Your task to perform on an android device: uninstall "Nova Launcher" Image 0: 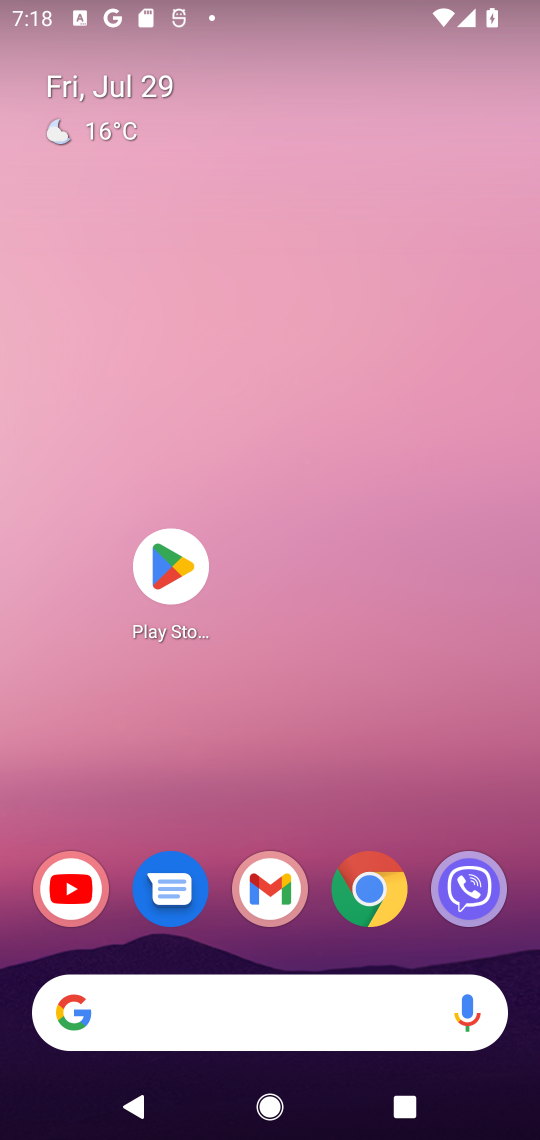
Step 0: press home button
Your task to perform on an android device: uninstall "Nova Launcher" Image 1: 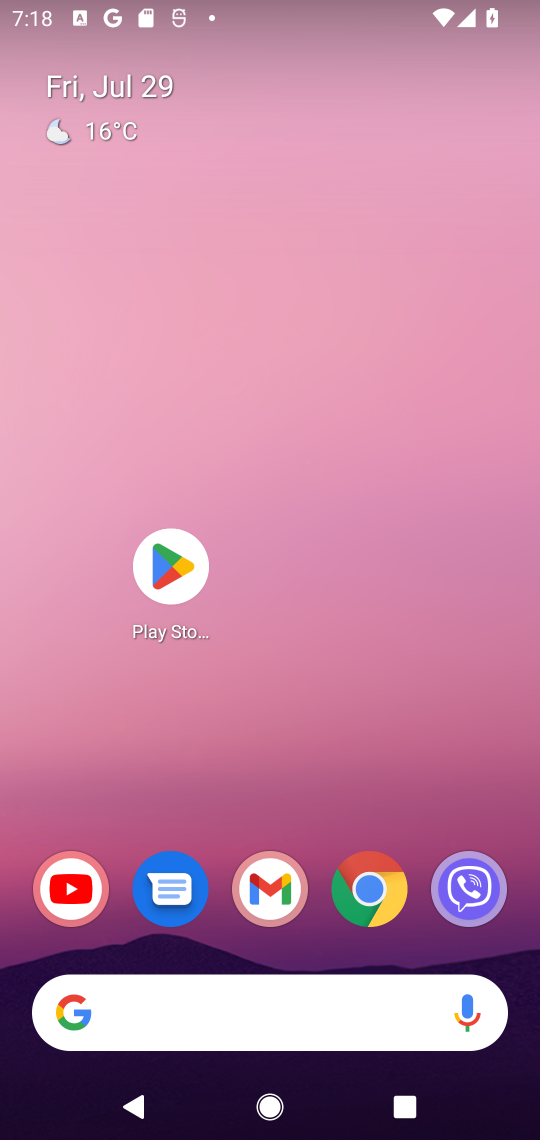
Step 1: click (156, 575)
Your task to perform on an android device: uninstall "Nova Launcher" Image 2: 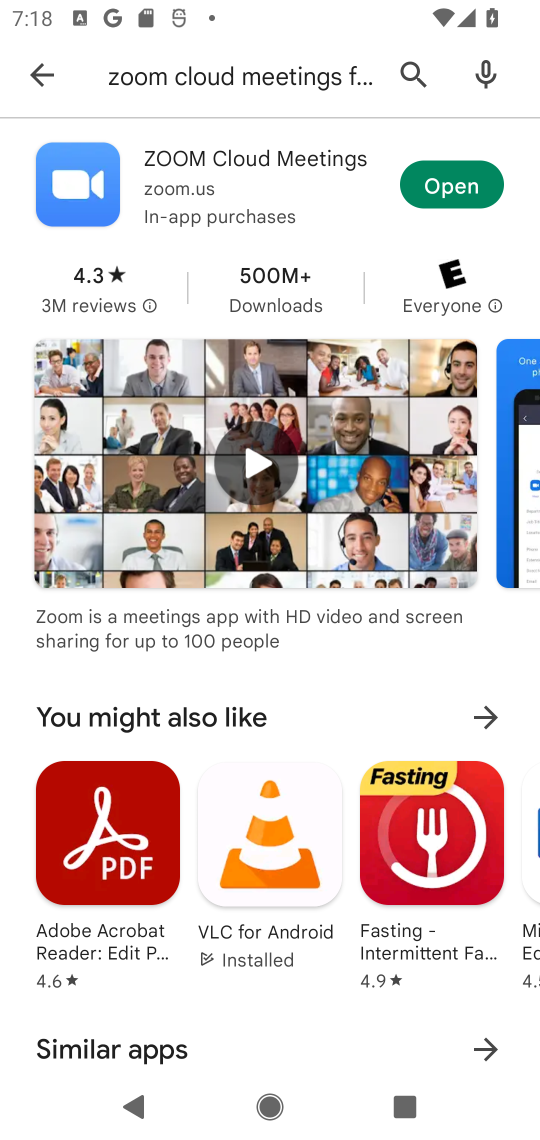
Step 2: click (410, 79)
Your task to perform on an android device: uninstall "Nova Launcher" Image 3: 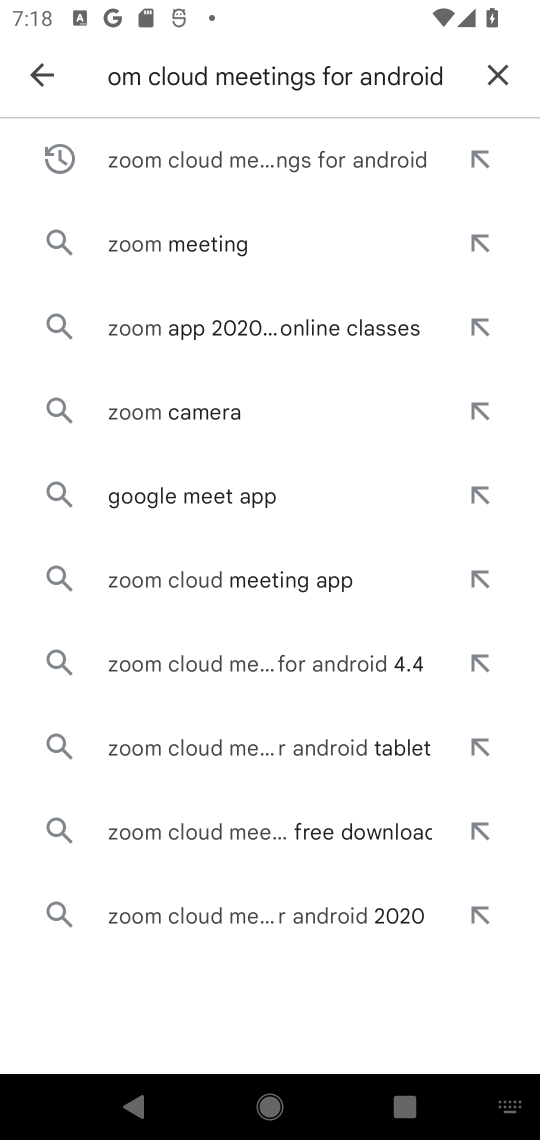
Step 3: click (490, 67)
Your task to perform on an android device: uninstall "Nova Launcher" Image 4: 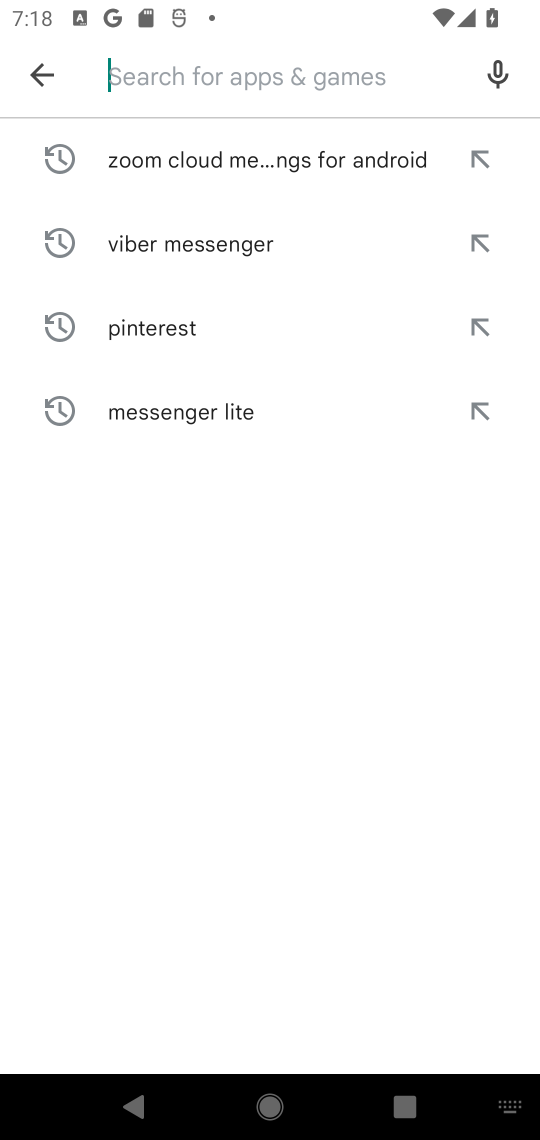
Step 4: type "Nova Launcher"
Your task to perform on an android device: uninstall "Nova Launcher" Image 5: 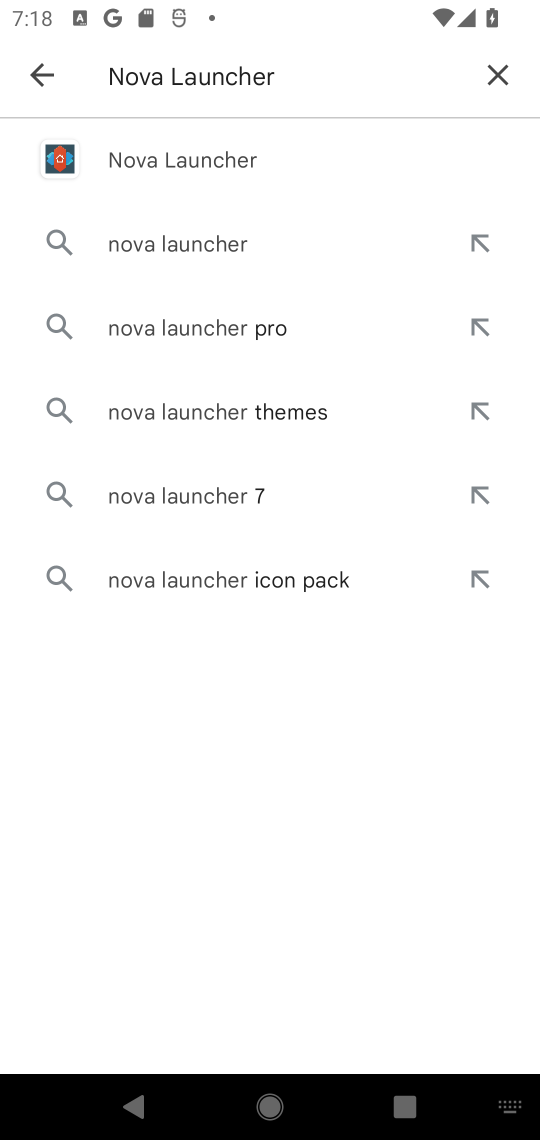
Step 5: click (200, 158)
Your task to perform on an android device: uninstall "Nova Launcher" Image 6: 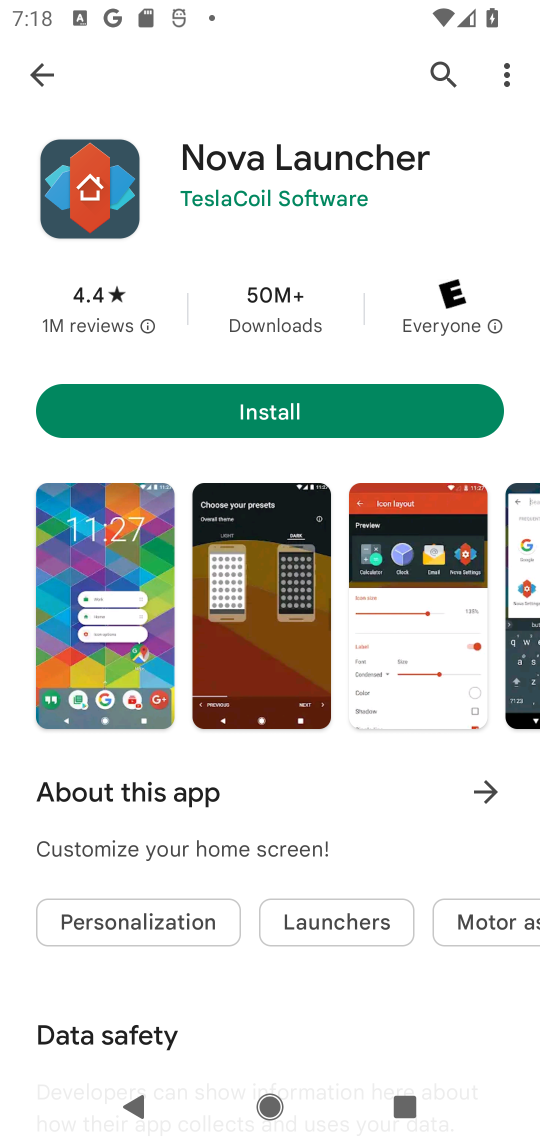
Step 6: task complete